Your task to perform on an android device: Go to Amazon Image 0: 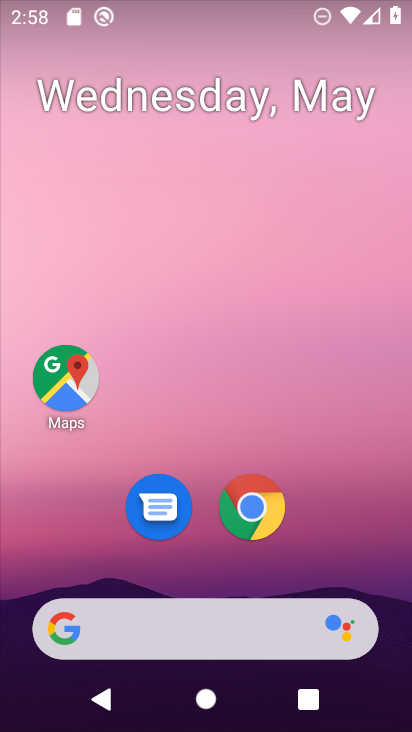
Step 0: click (254, 514)
Your task to perform on an android device: Go to Amazon Image 1: 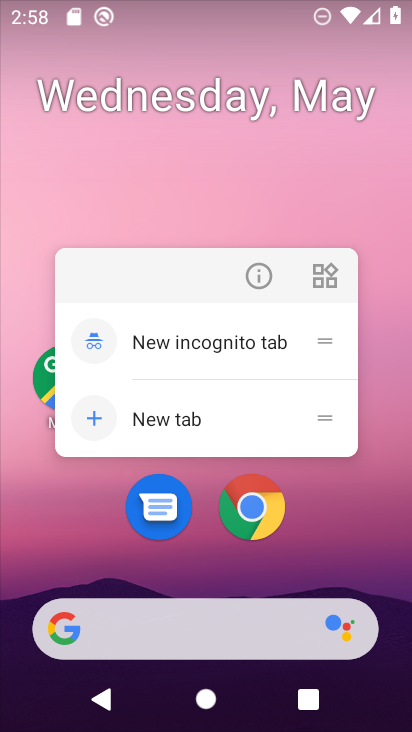
Step 1: click (255, 515)
Your task to perform on an android device: Go to Amazon Image 2: 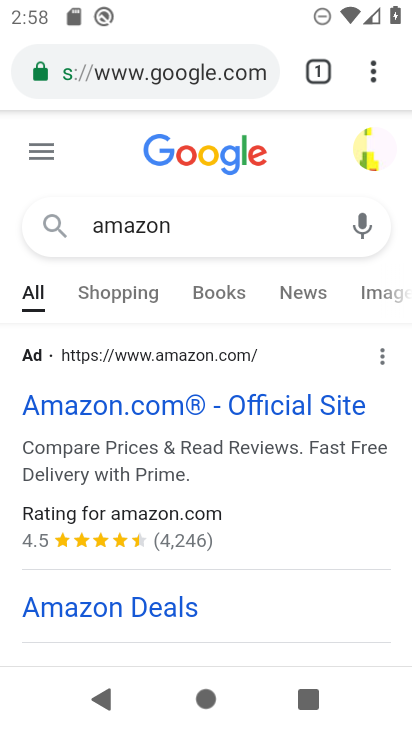
Step 2: click (190, 410)
Your task to perform on an android device: Go to Amazon Image 3: 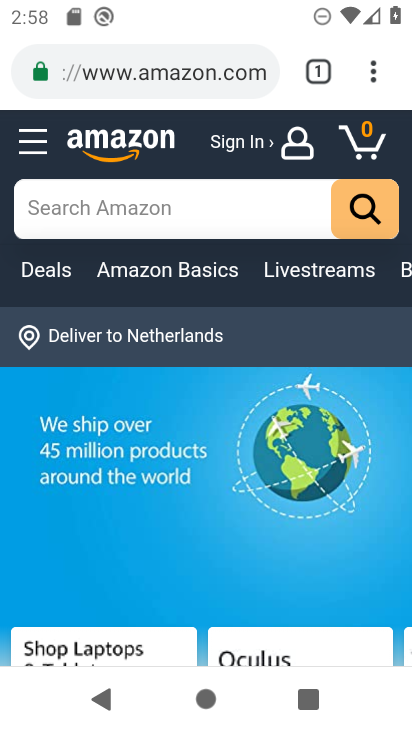
Step 3: task complete